Your task to perform on an android device: Add razer deathadder to the cart on amazon, then select checkout. Image 0: 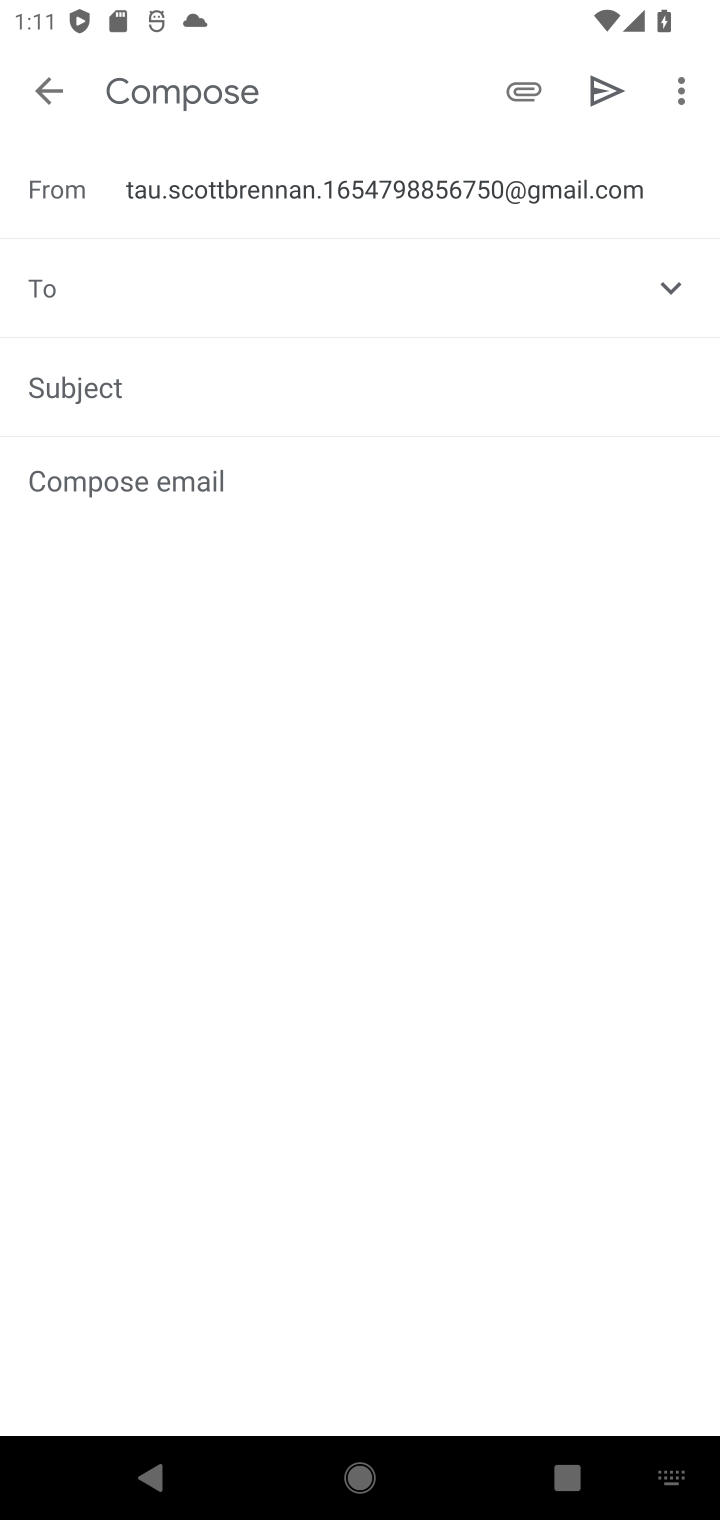
Step 0: press home button
Your task to perform on an android device: Add razer deathadder to the cart on amazon, then select checkout. Image 1: 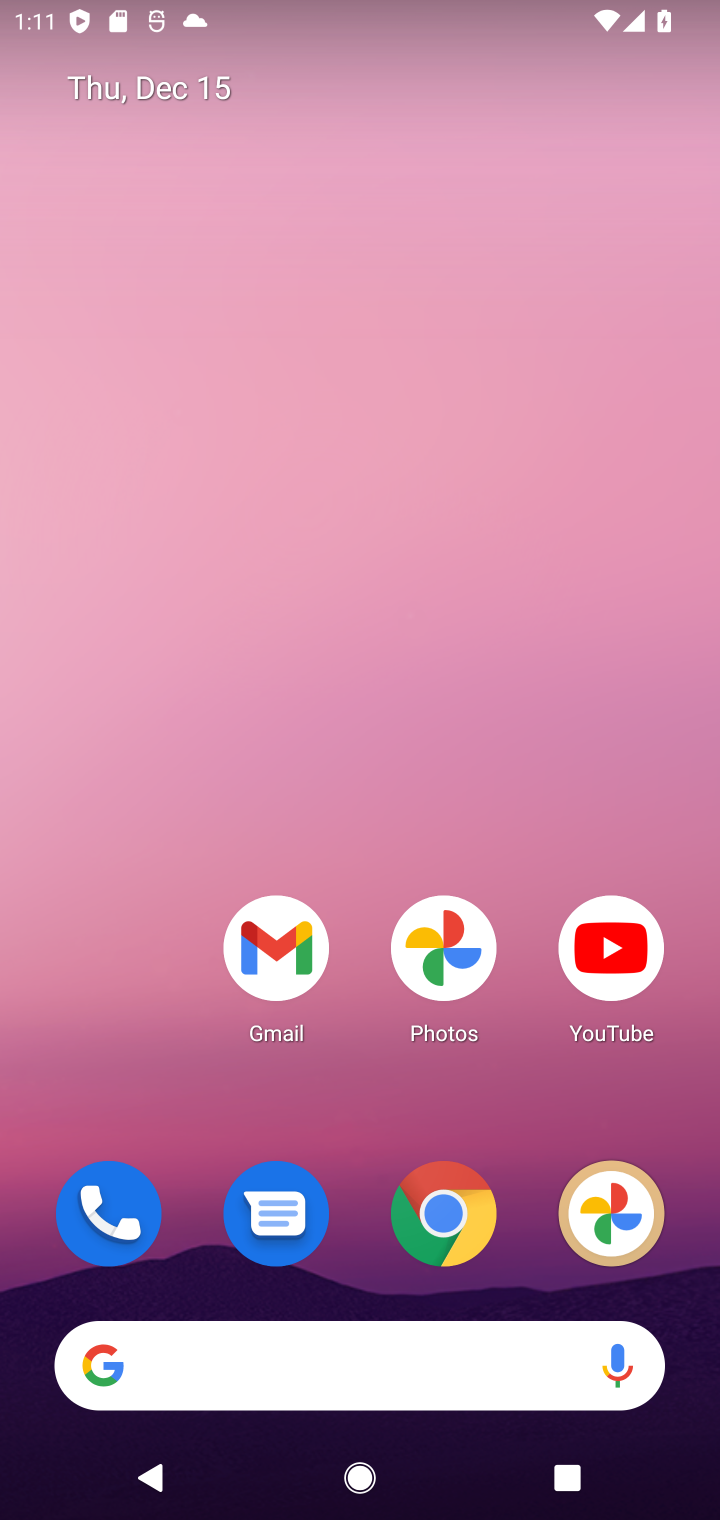
Step 1: click (413, 1366)
Your task to perform on an android device: Add razer deathadder to the cart on amazon, then select checkout. Image 2: 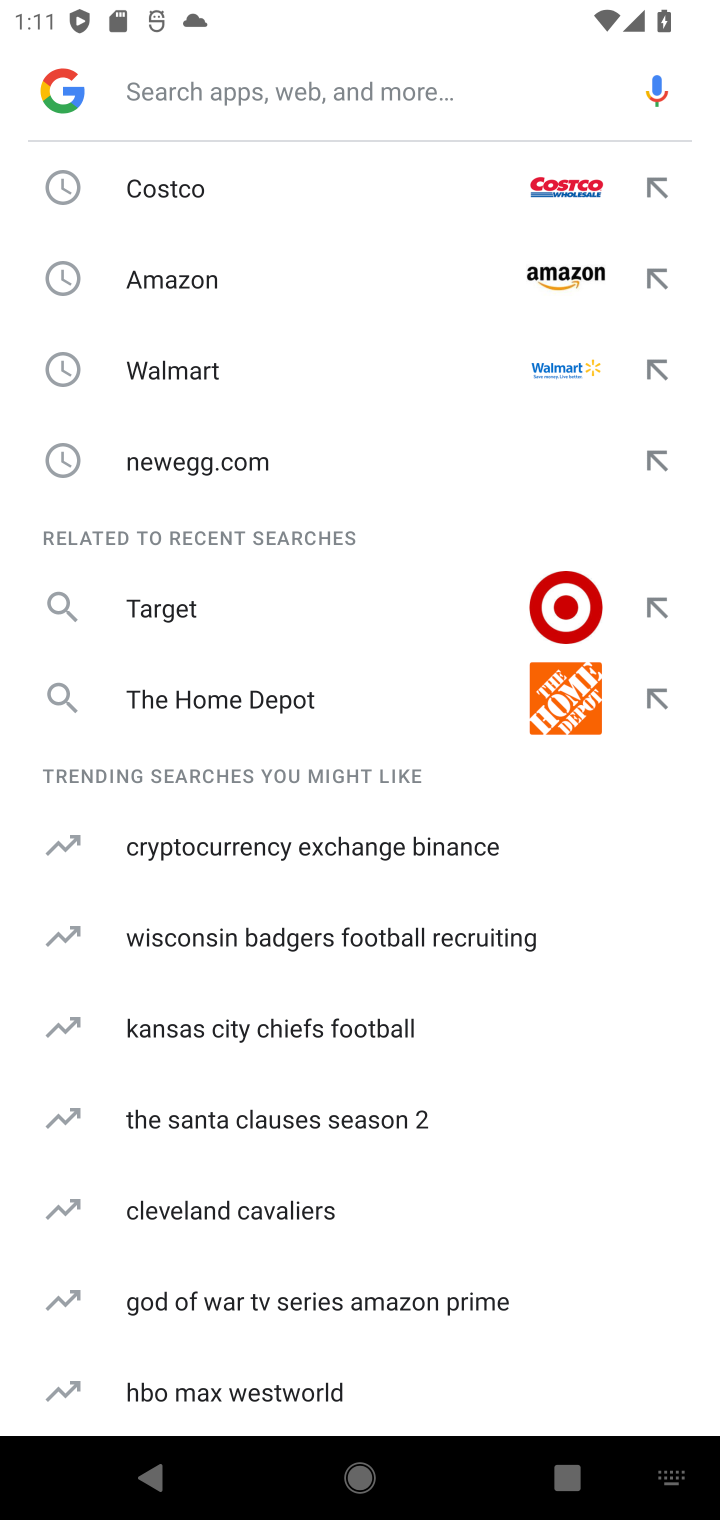
Step 2: type "amazon"
Your task to perform on an android device: Add razer deathadder to the cart on amazon, then select checkout. Image 3: 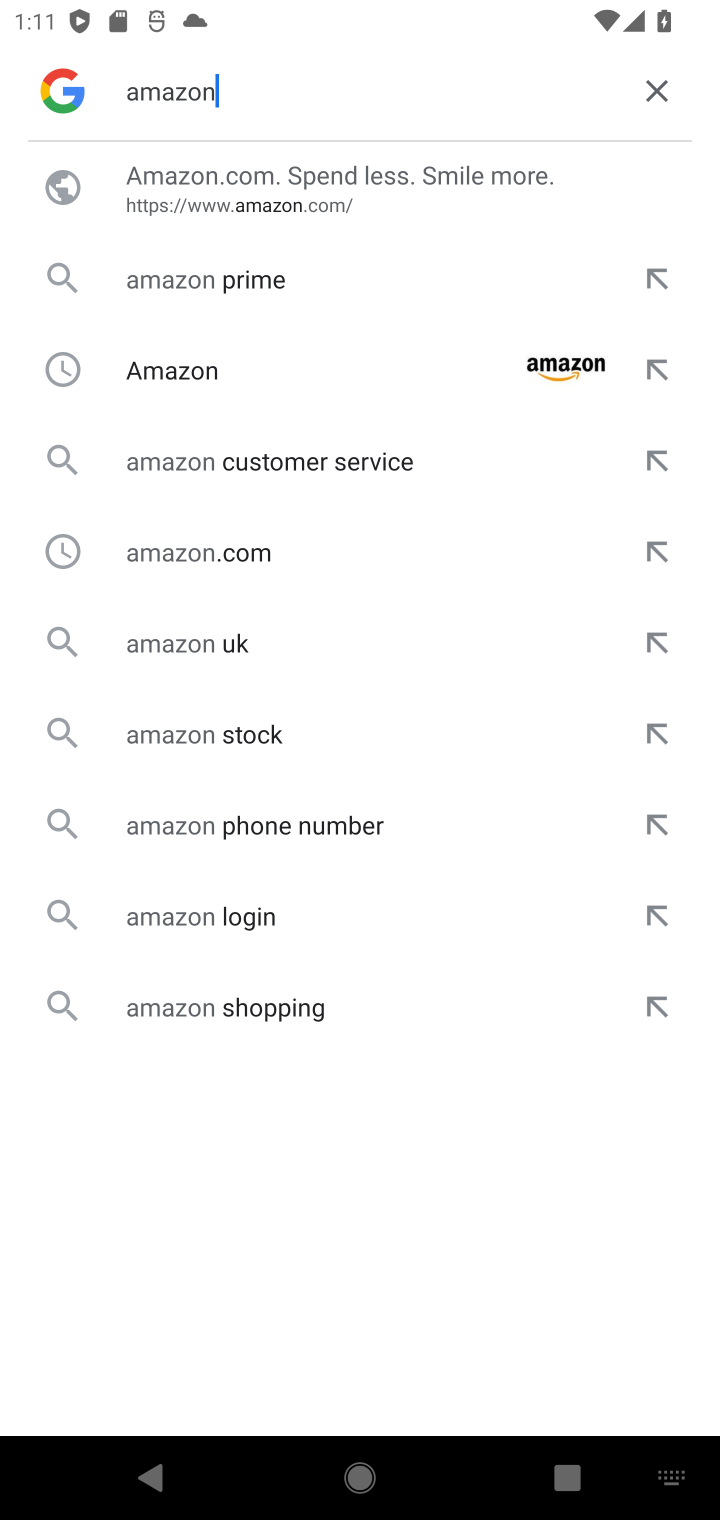
Step 3: click (294, 215)
Your task to perform on an android device: Add razer deathadder to the cart on amazon, then select checkout. Image 4: 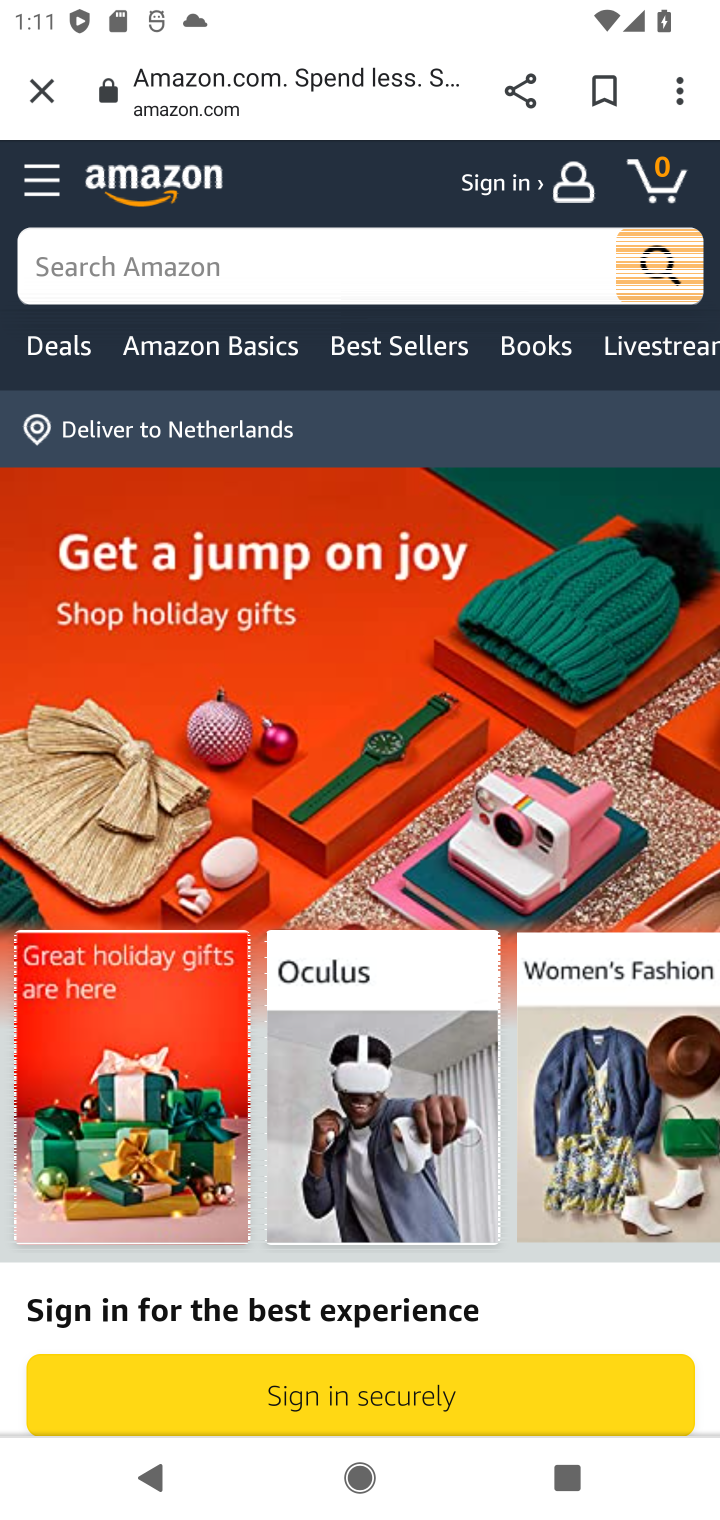
Step 4: click (272, 270)
Your task to perform on an android device: Add razer deathadder to the cart on amazon, then select checkout. Image 5: 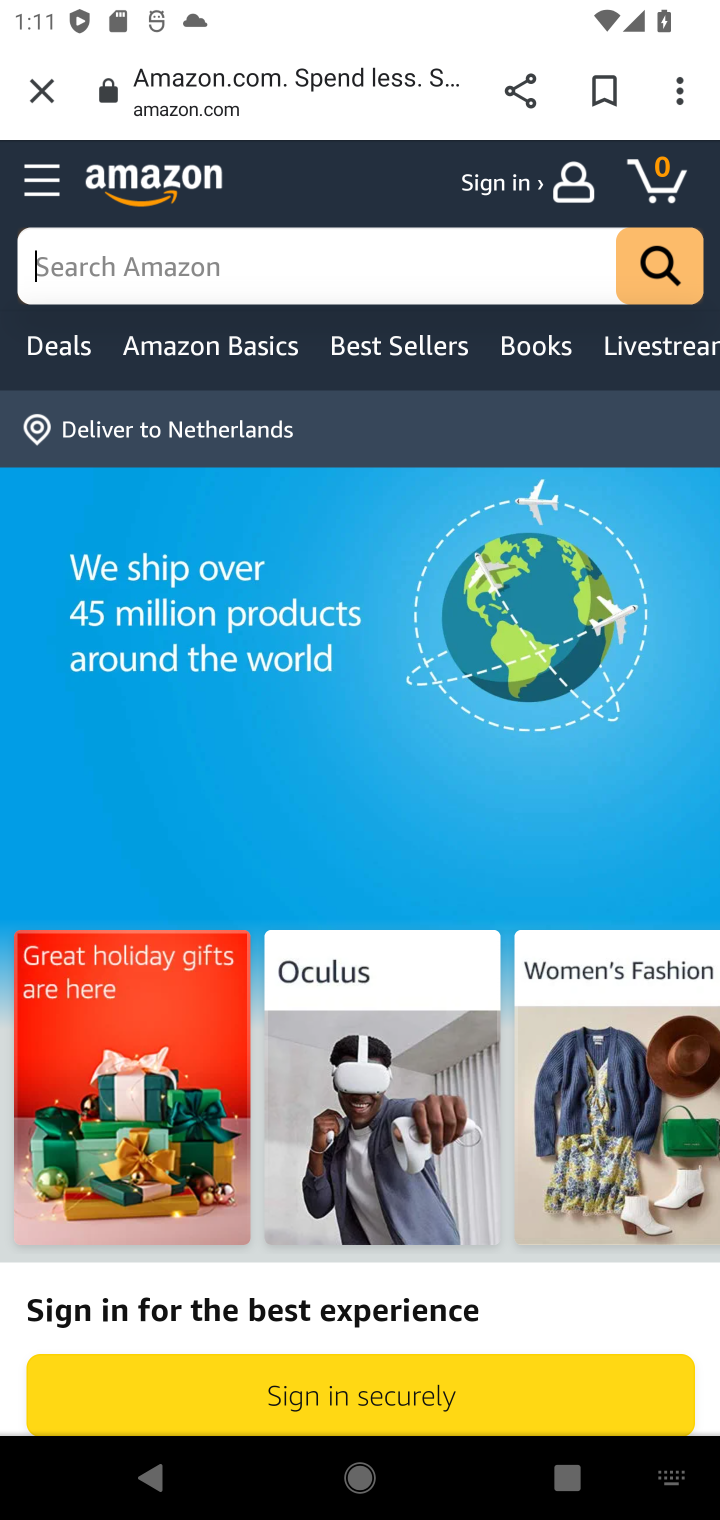
Step 5: type "razer deathadder"
Your task to perform on an android device: Add razer deathadder to the cart on amazon, then select checkout. Image 6: 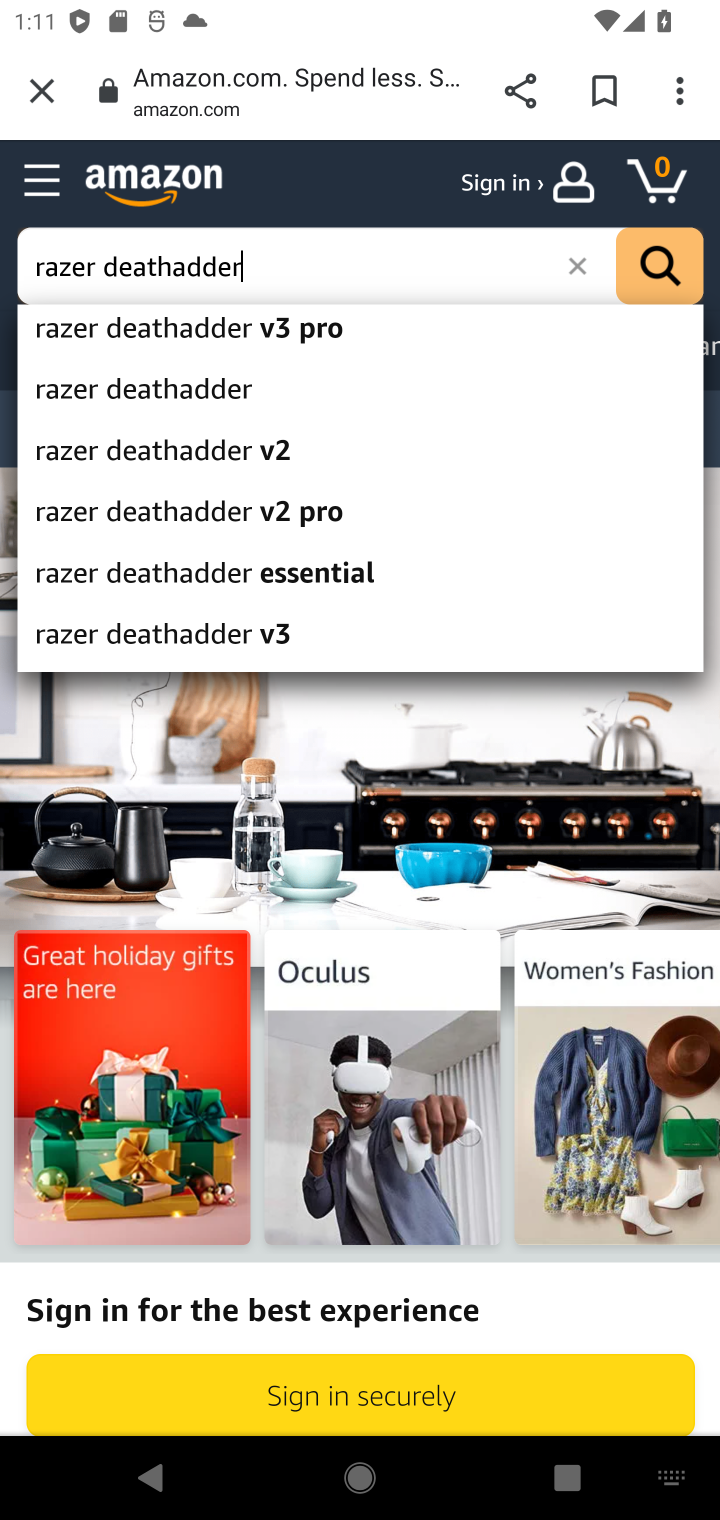
Step 6: click (249, 352)
Your task to perform on an android device: Add razer deathadder to the cart on amazon, then select checkout. Image 7: 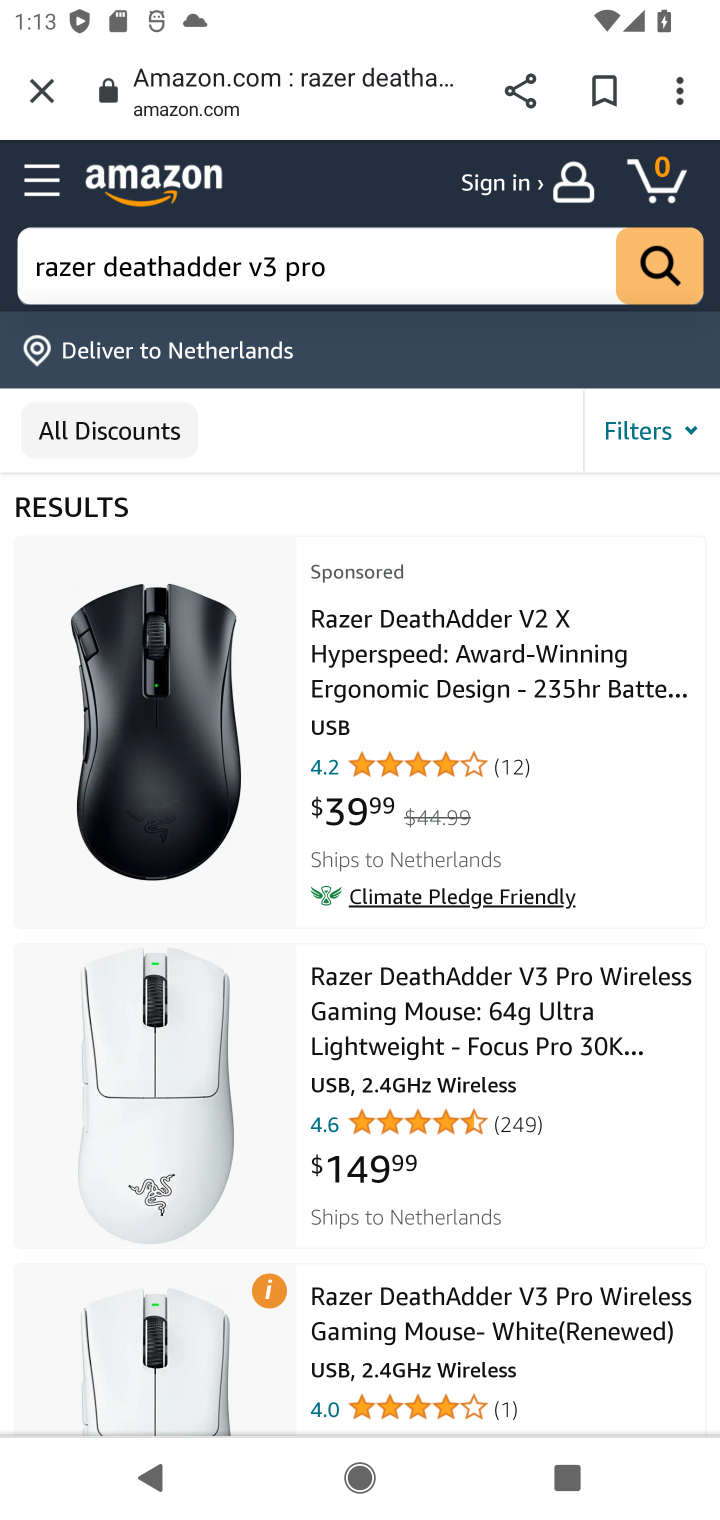
Step 7: task complete